Your task to perform on an android device: change timer sound Image 0: 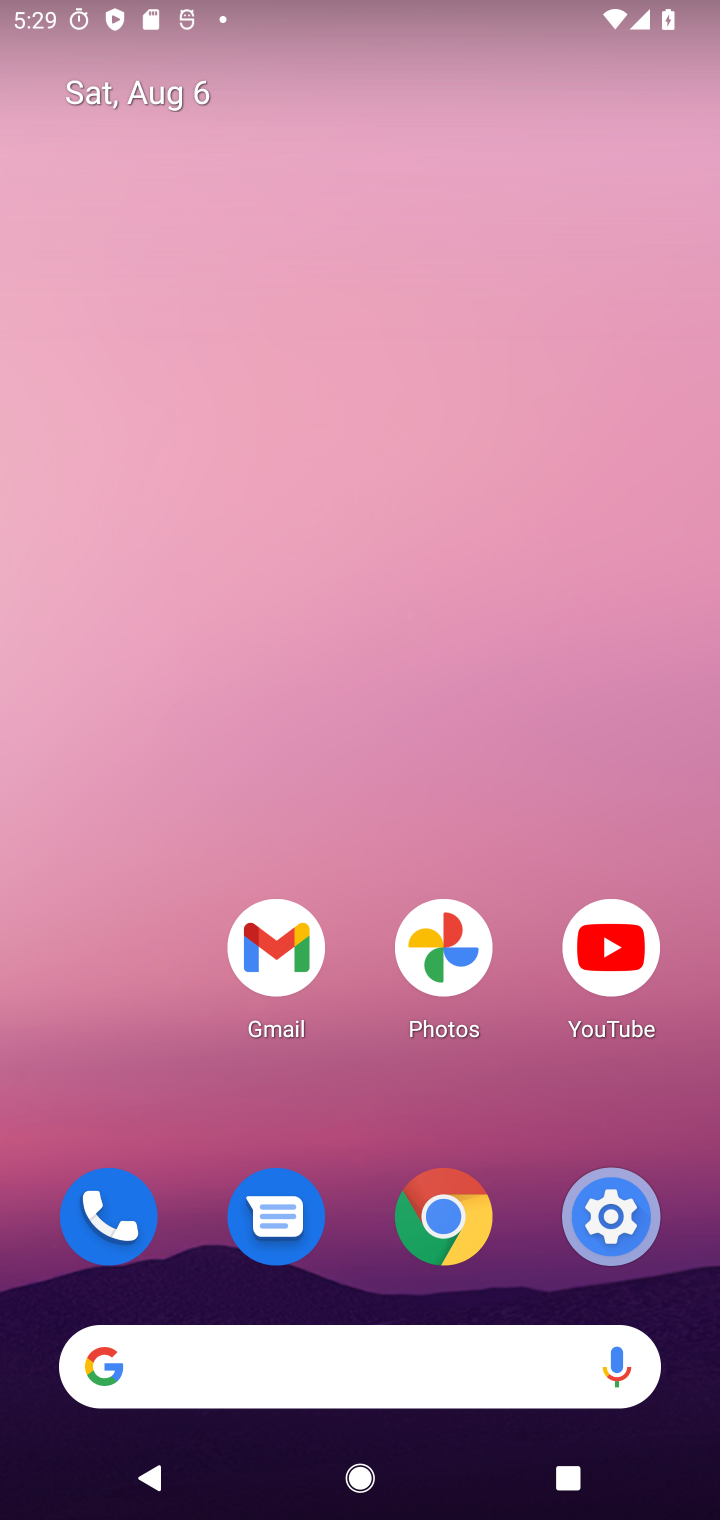
Step 0: drag from (480, 834) to (467, 118)
Your task to perform on an android device: change timer sound Image 1: 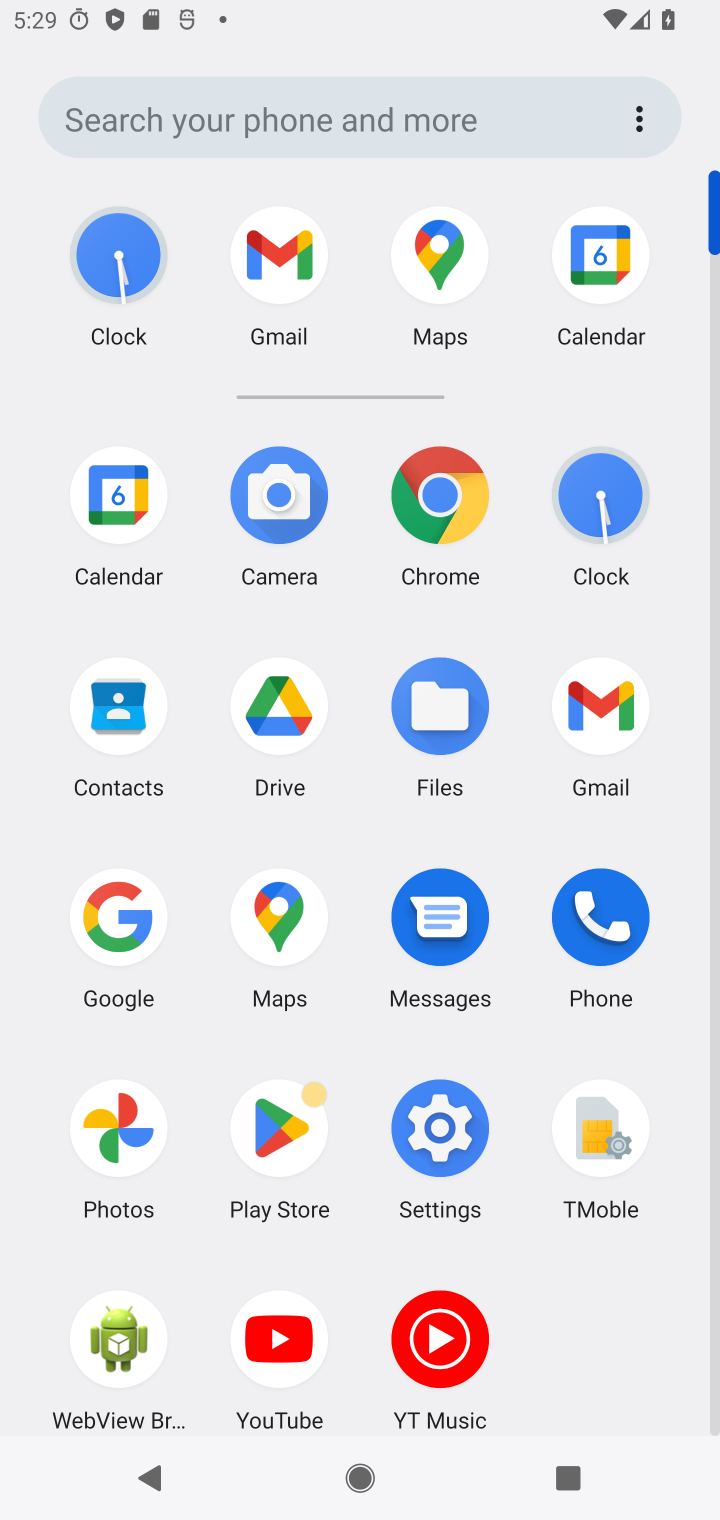
Step 1: click (587, 507)
Your task to perform on an android device: change timer sound Image 2: 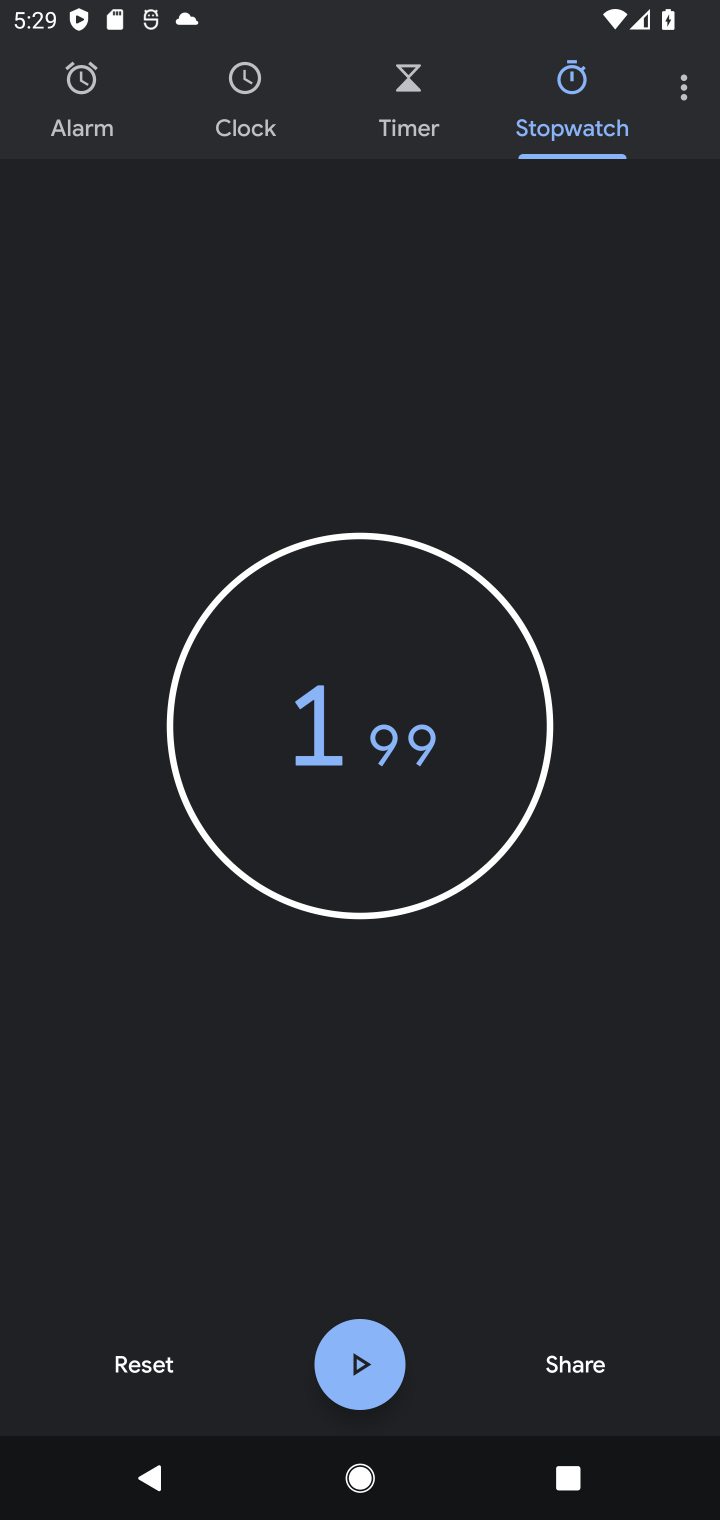
Step 2: click (688, 86)
Your task to perform on an android device: change timer sound Image 3: 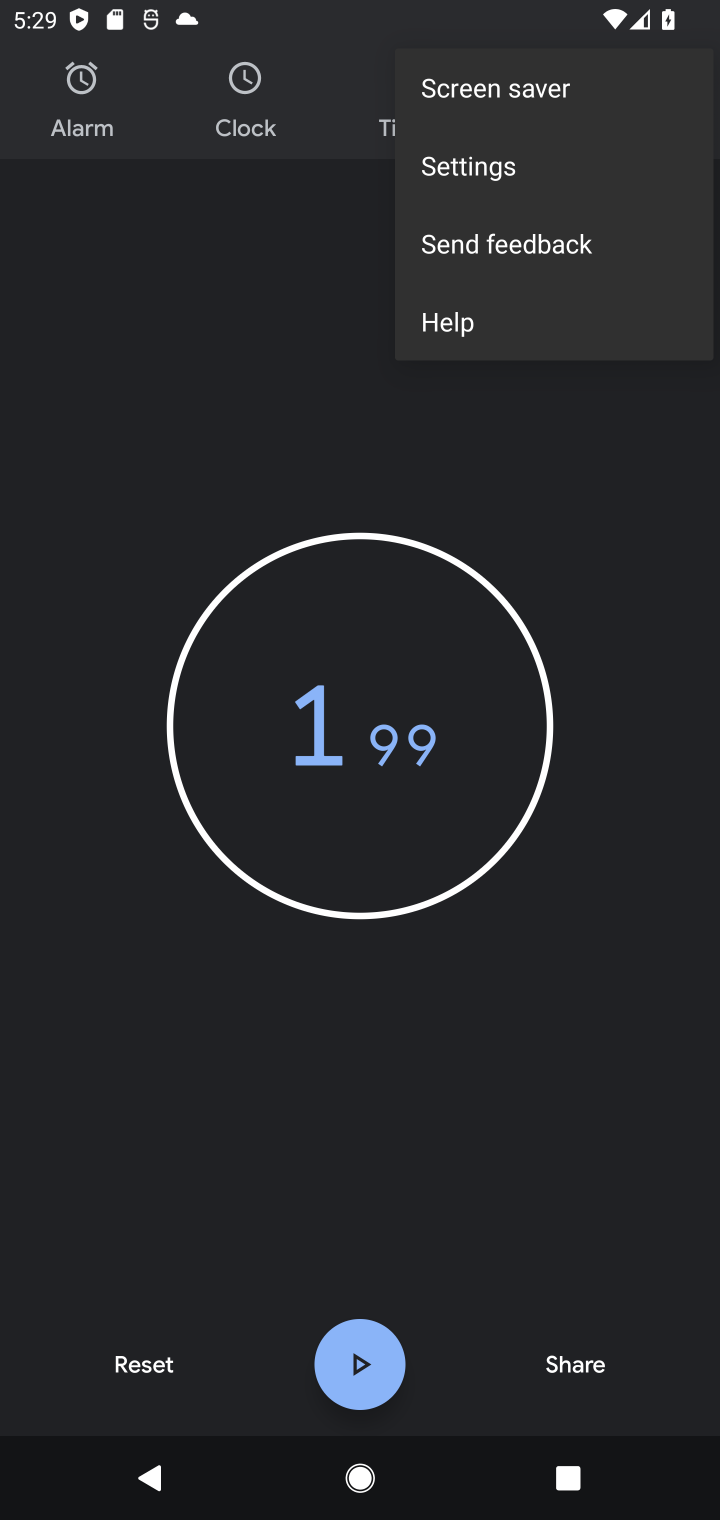
Step 3: click (505, 166)
Your task to perform on an android device: change timer sound Image 4: 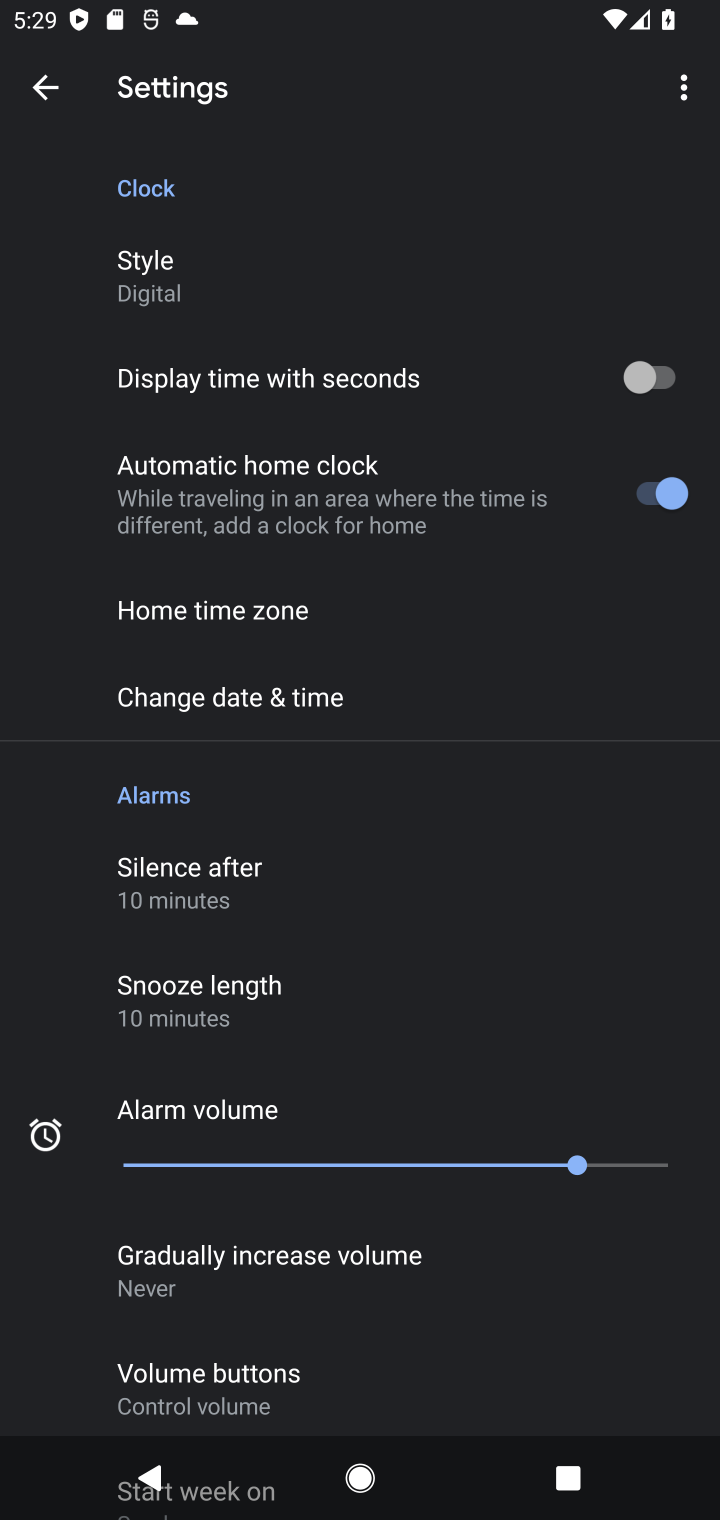
Step 4: drag from (522, 1320) to (500, 535)
Your task to perform on an android device: change timer sound Image 5: 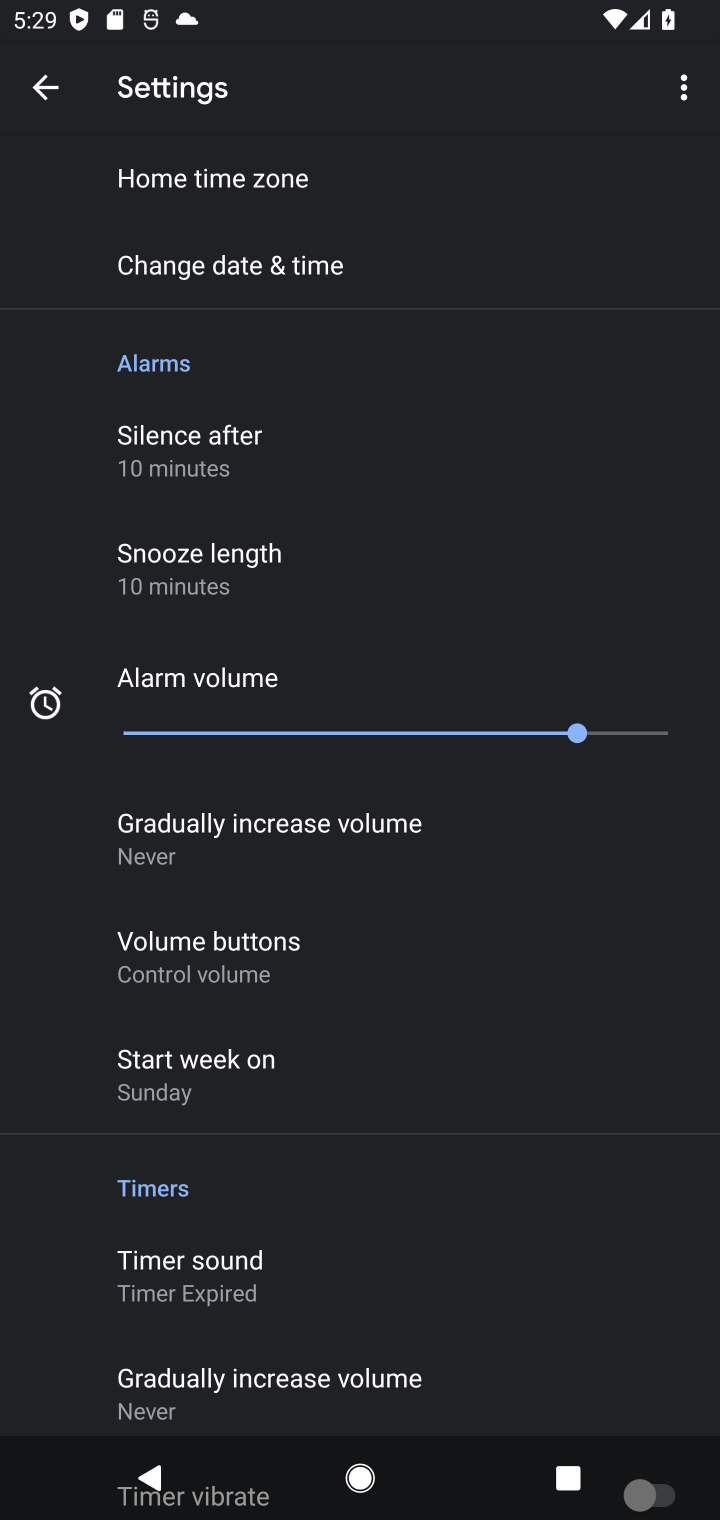
Step 5: click (183, 1274)
Your task to perform on an android device: change timer sound Image 6: 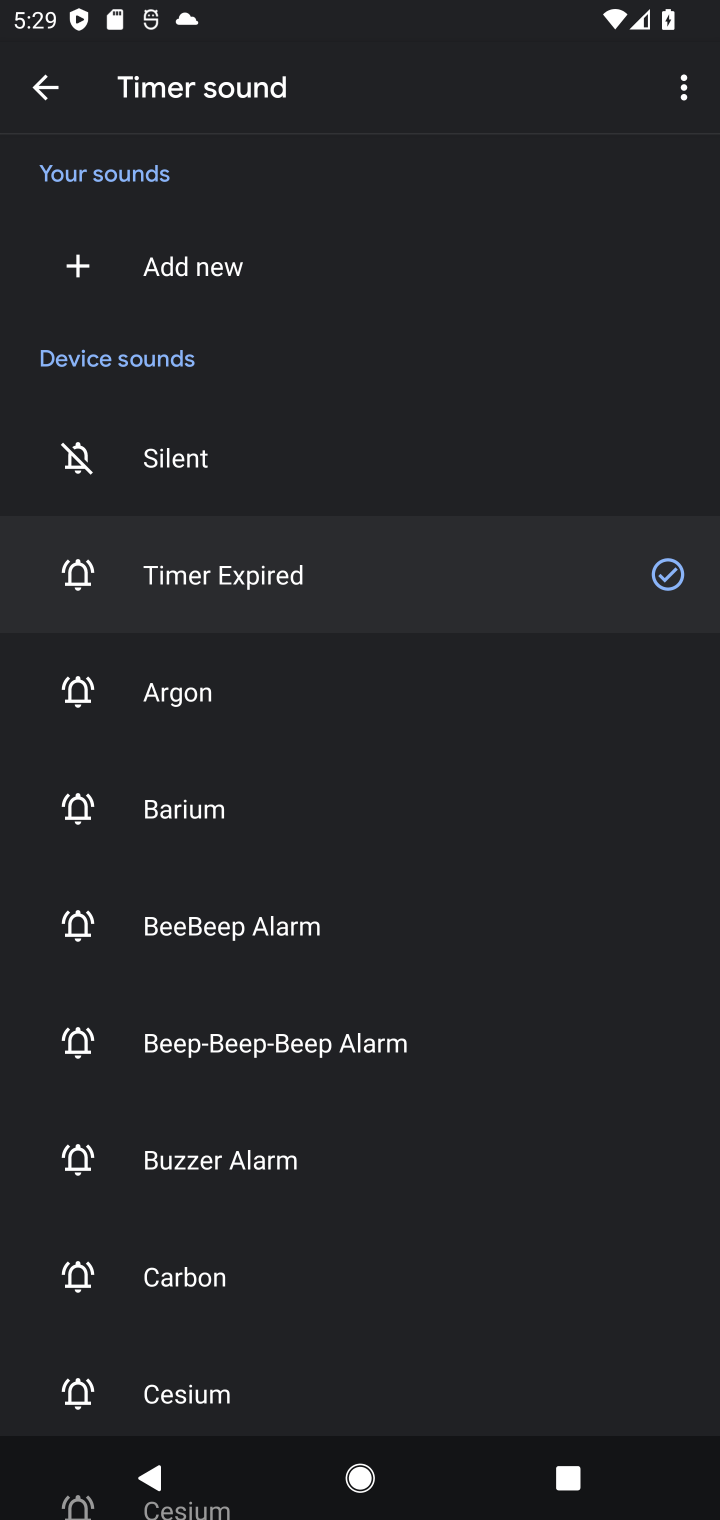
Step 6: click (249, 711)
Your task to perform on an android device: change timer sound Image 7: 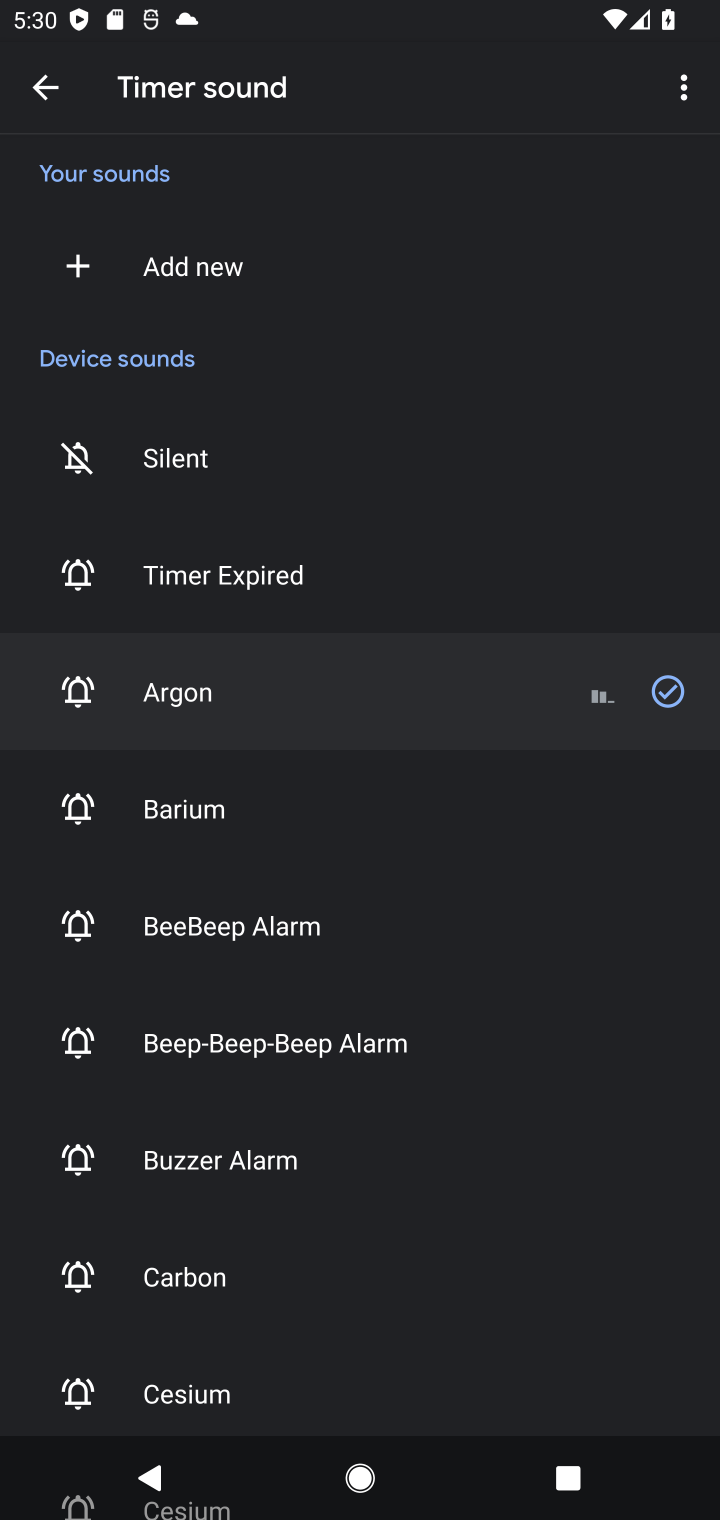
Step 7: task complete